Your task to perform on an android device: change your default location settings in chrome Image 0: 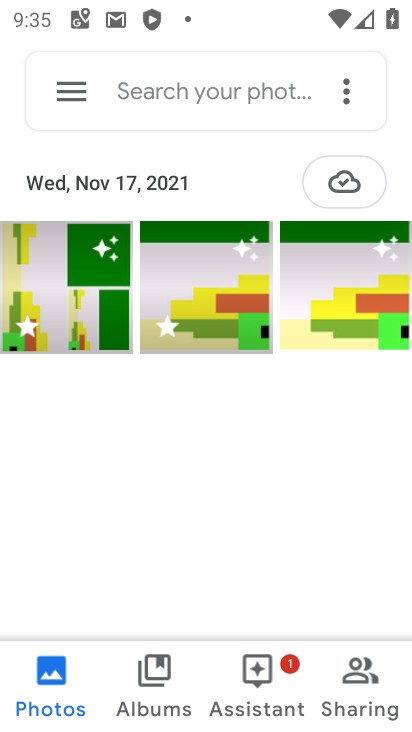
Step 0: press home button
Your task to perform on an android device: change your default location settings in chrome Image 1: 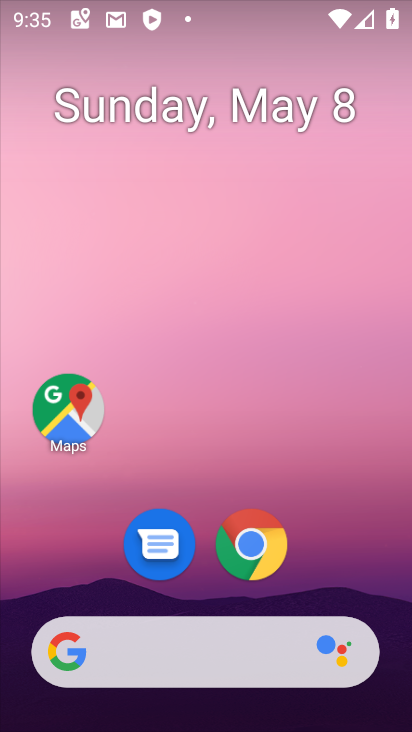
Step 1: drag from (349, 540) to (346, 320)
Your task to perform on an android device: change your default location settings in chrome Image 2: 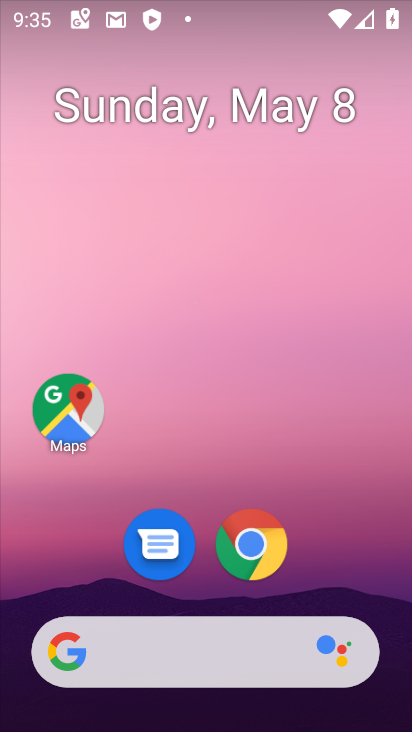
Step 2: click (266, 528)
Your task to perform on an android device: change your default location settings in chrome Image 3: 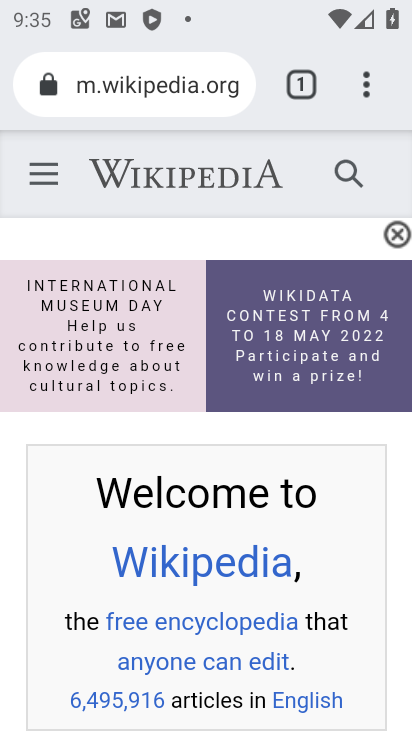
Step 3: click (377, 77)
Your task to perform on an android device: change your default location settings in chrome Image 4: 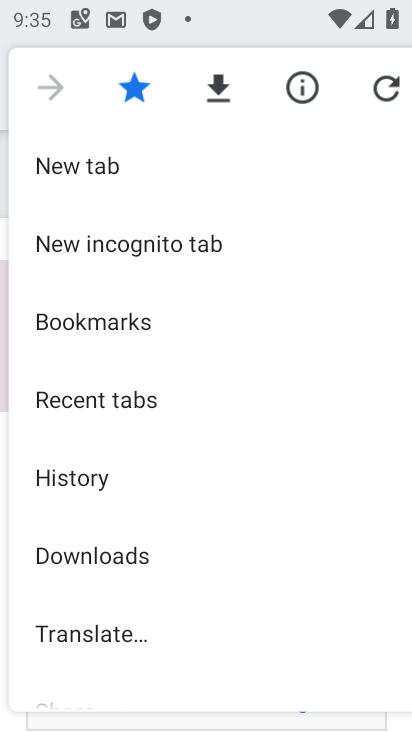
Step 4: drag from (219, 665) to (223, 422)
Your task to perform on an android device: change your default location settings in chrome Image 5: 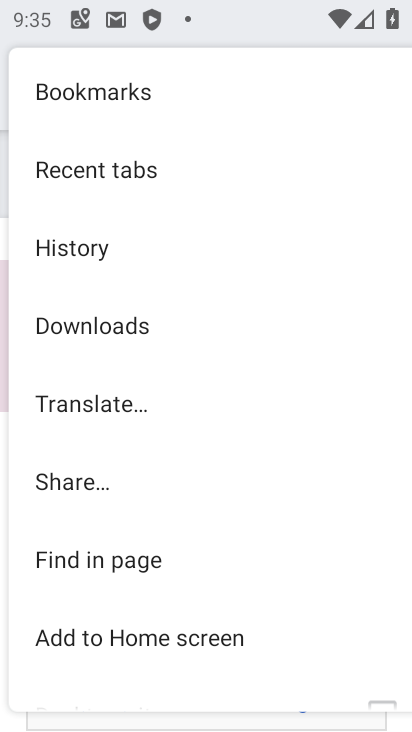
Step 5: drag from (180, 643) to (193, 321)
Your task to perform on an android device: change your default location settings in chrome Image 6: 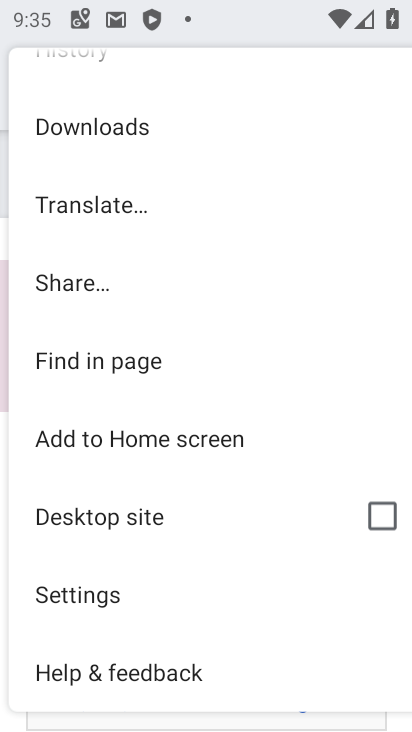
Step 6: click (182, 601)
Your task to perform on an android device: change your default location settings in chrome Image 7: 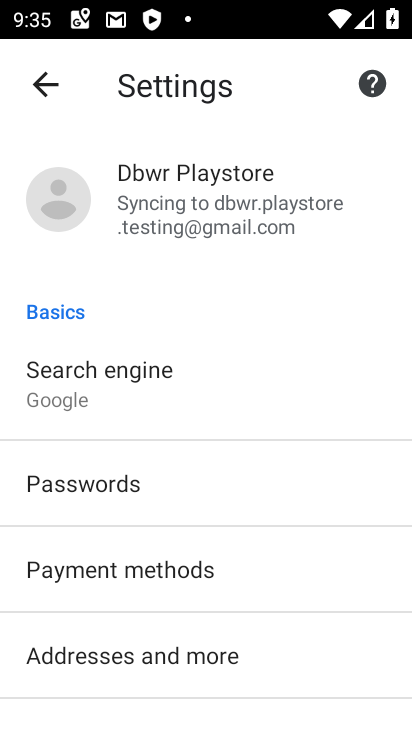
Step 7: drag from (206, 606) to (208, 309)
Your task to perform on an android device: change your default location settings in chrome Image 8: 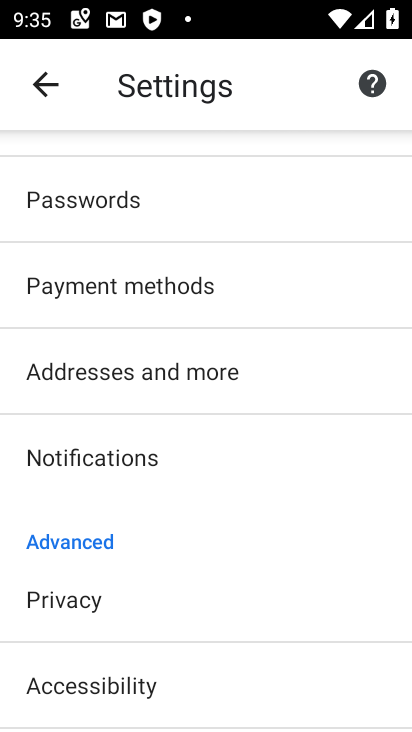
Step 8: click (204, 381)
Your task to perform on an android device: change your default location settings in chrome Image 9: 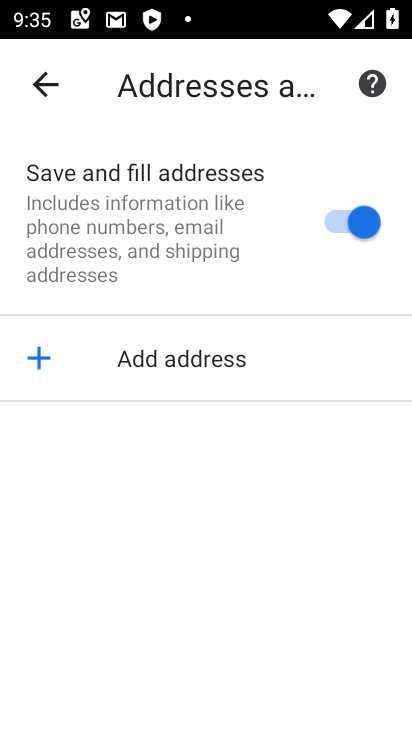
Step 9: task complete